Your task to perform on an android device: set the timer Image 0: 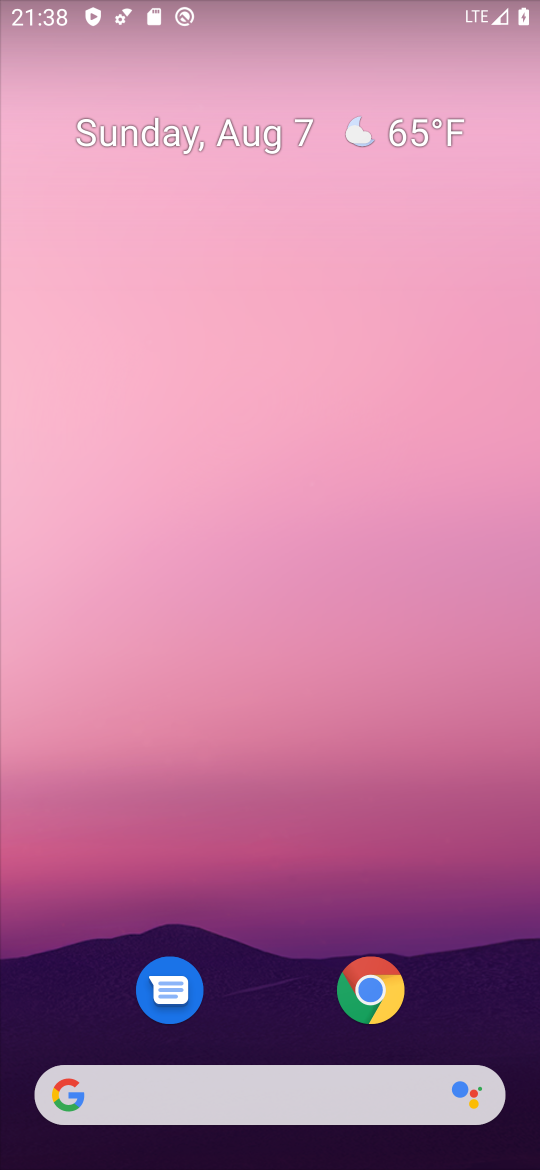
Step 0: drag from (313, 605) to (296, 35)
Your task to perform on an android device: set the timer Image 1: 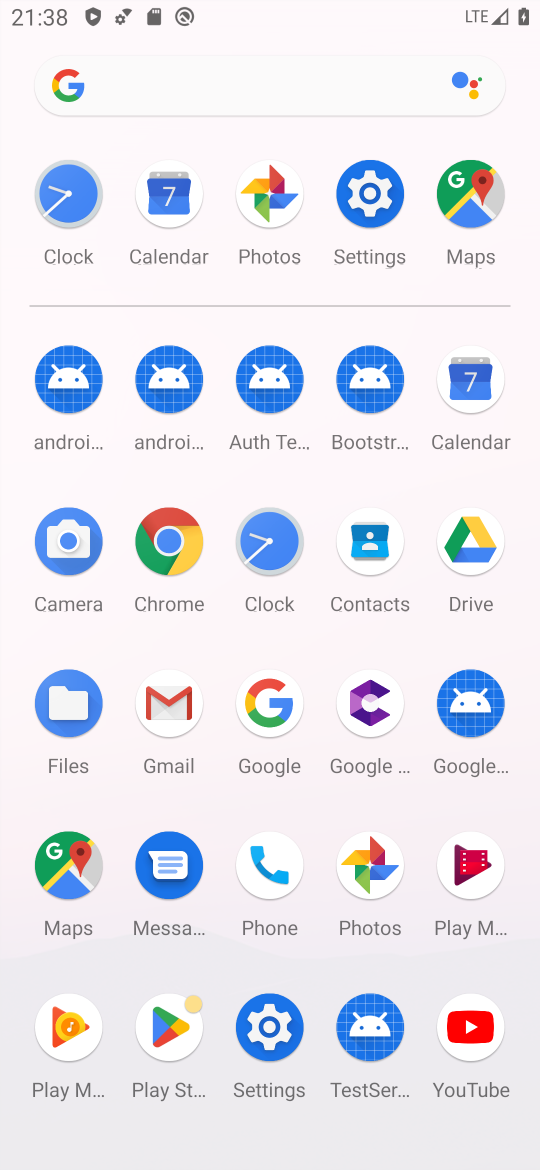
Step 1: click (73, 191)
Your task to perform on an android device: set the timer Image 2: 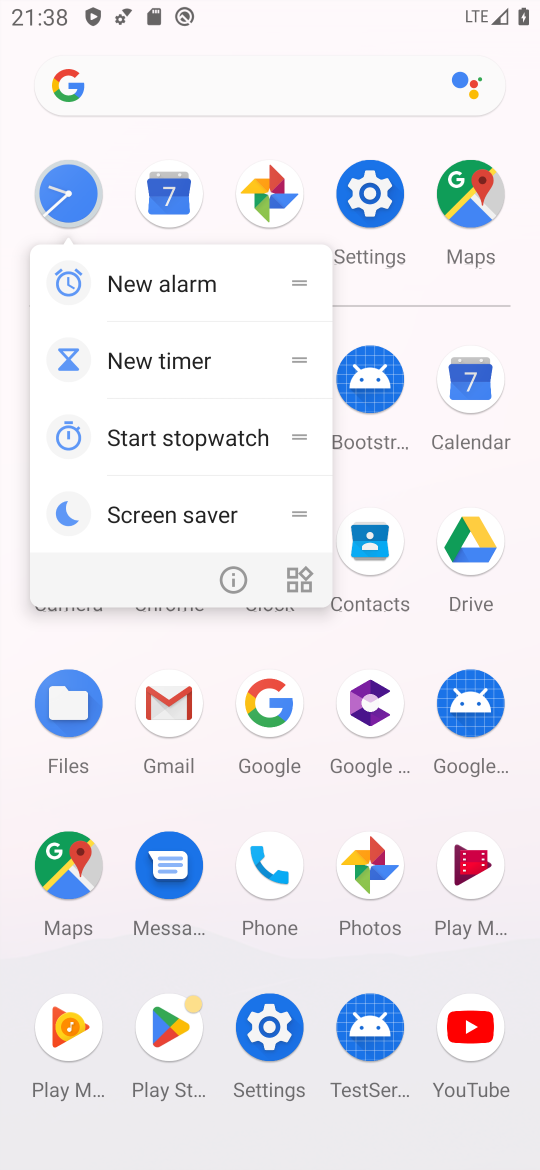
Step 2: click (71, 195)
Your task to perform on an android device: set the timer Image 3: 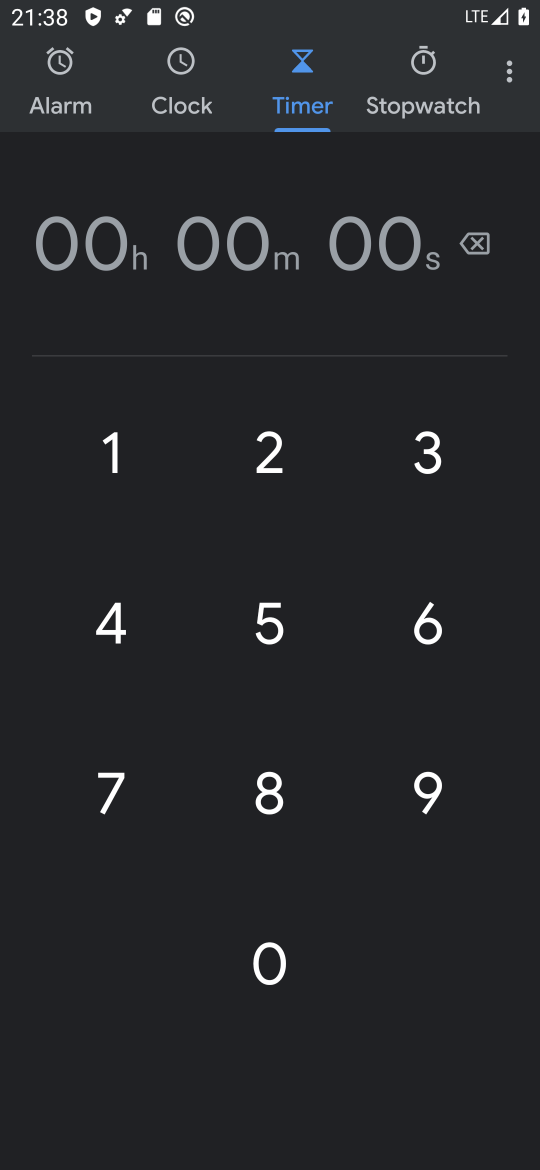
Step 3: click (99, 439)
Your task to perform on an android device: set the timer Image 4: 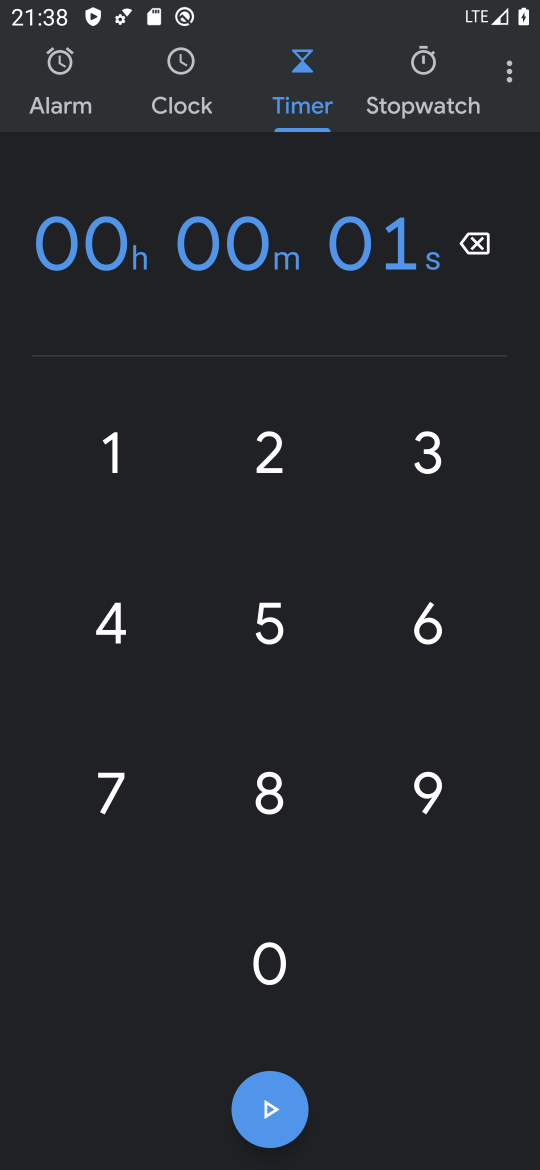
Step 4: click (115, 607)
Your task to perform on an android device: set the timer Image 5: 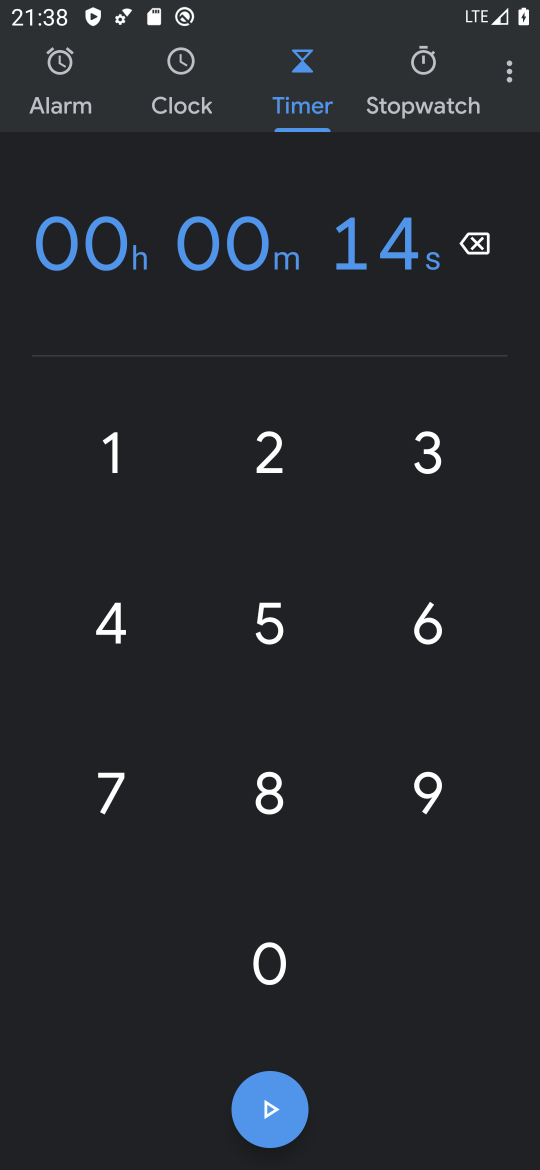
Step 5: task complete